Your task to perform on an android device: turn off translation in the chrome app Image 0: 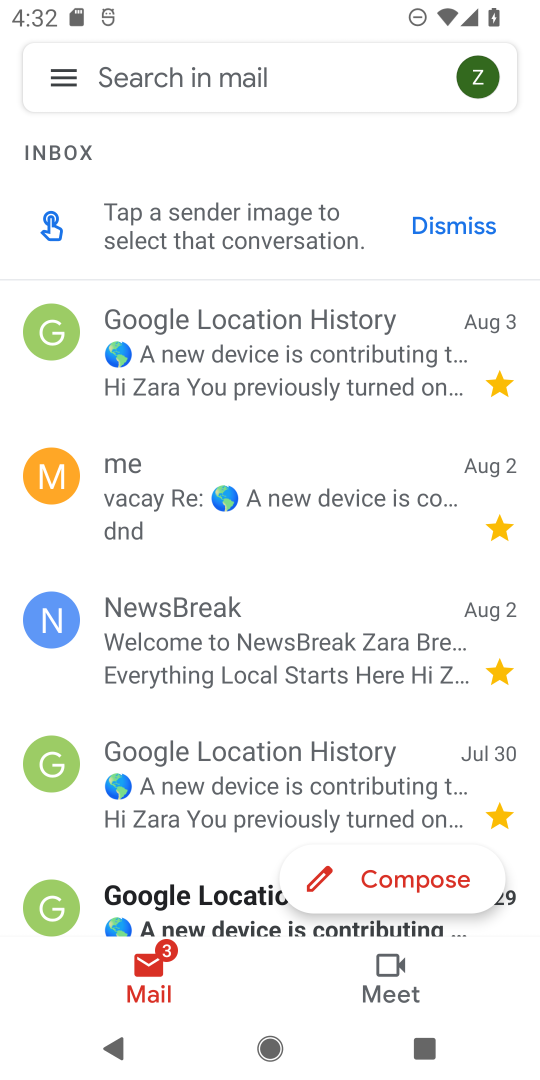
Step 0: press home button
Your task to perform on an android device: turn off translation in the chrome app Image 1: 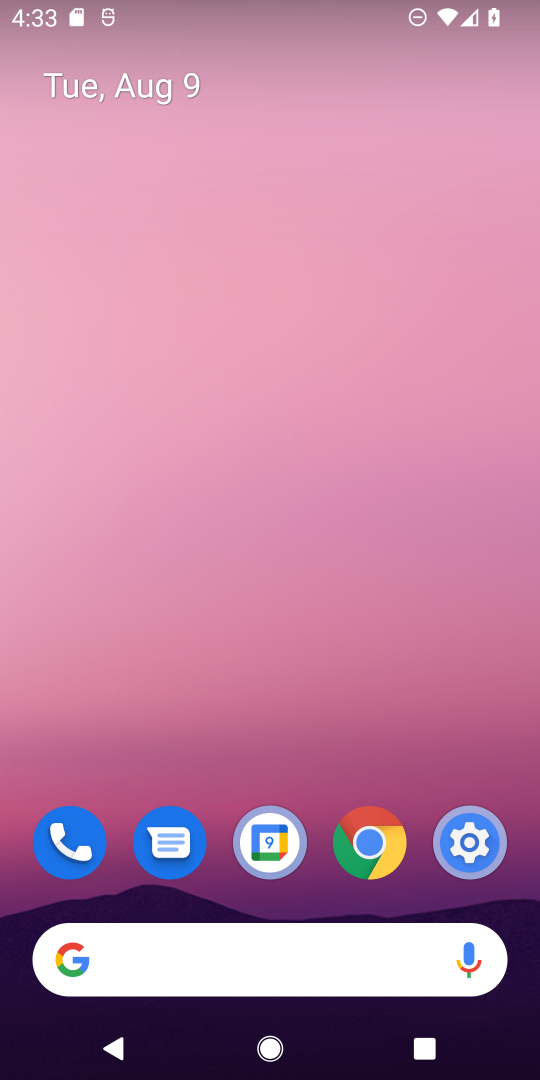
Step 1: drag from (270, 965) to (16, 240)
Your task to perform on an android device: turn off translation in the chrome app Image 2: 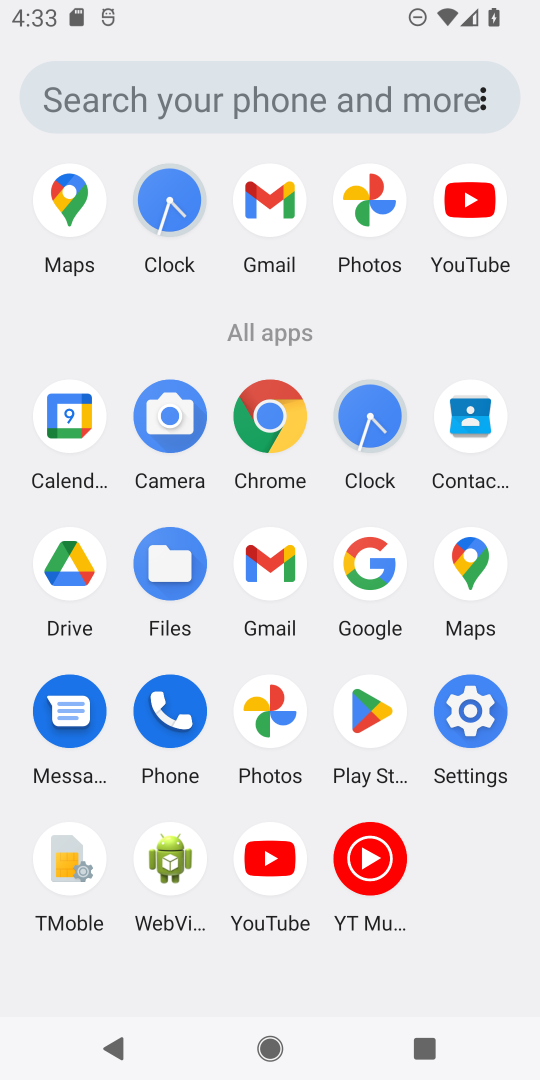
Step 2: click (262, 382)
Your task to perform on an android device: turn off translation in the chrome app Image 3: 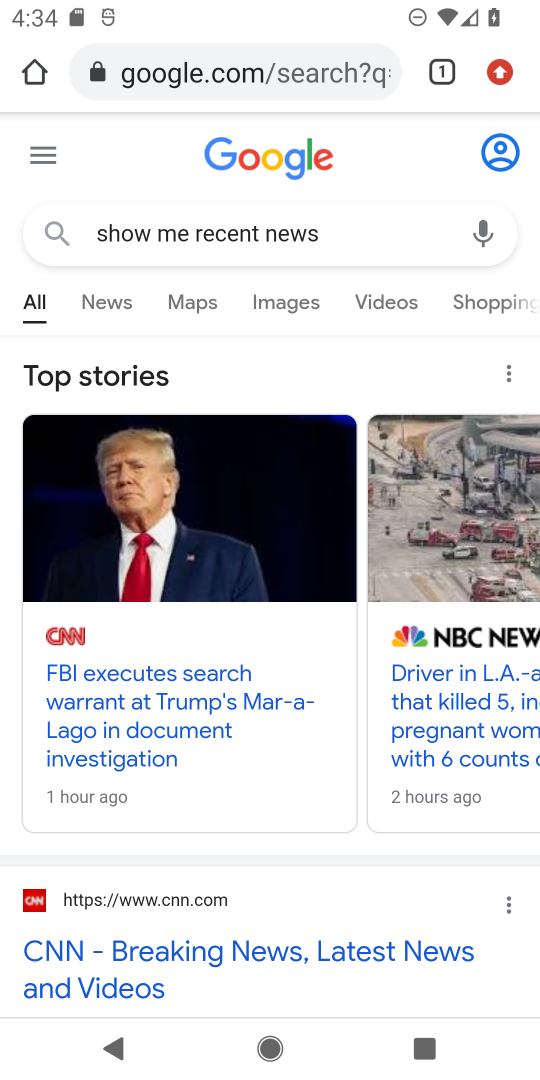
Step 3: click (491, 66)
Your task to perform on an android device: turn off translation in the chrome app Image 4: 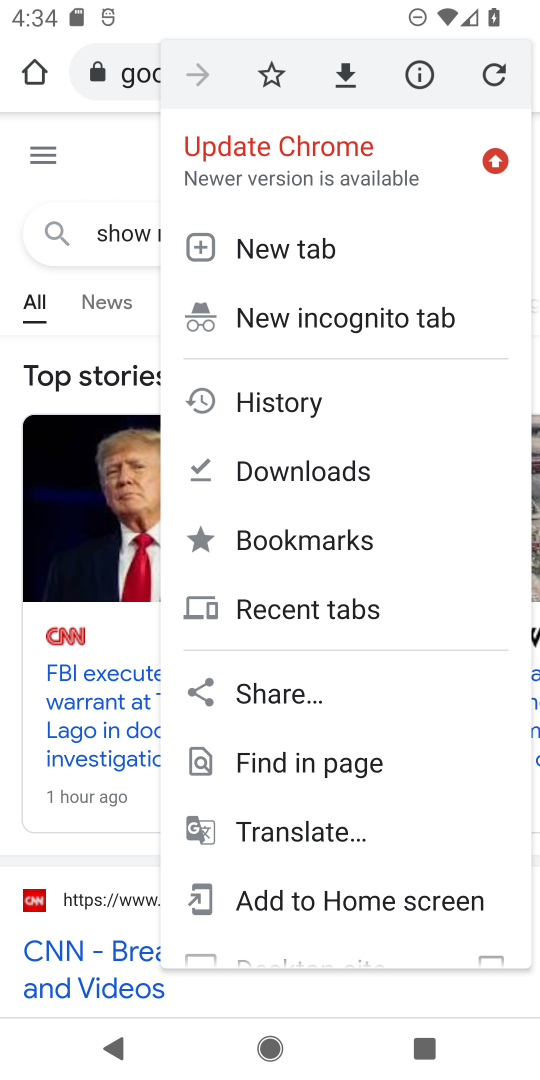
Step 4: drag from (448, 840) to (451, 282)
Your task to perform on an android device: turn off translation in the chrome app Image 5: 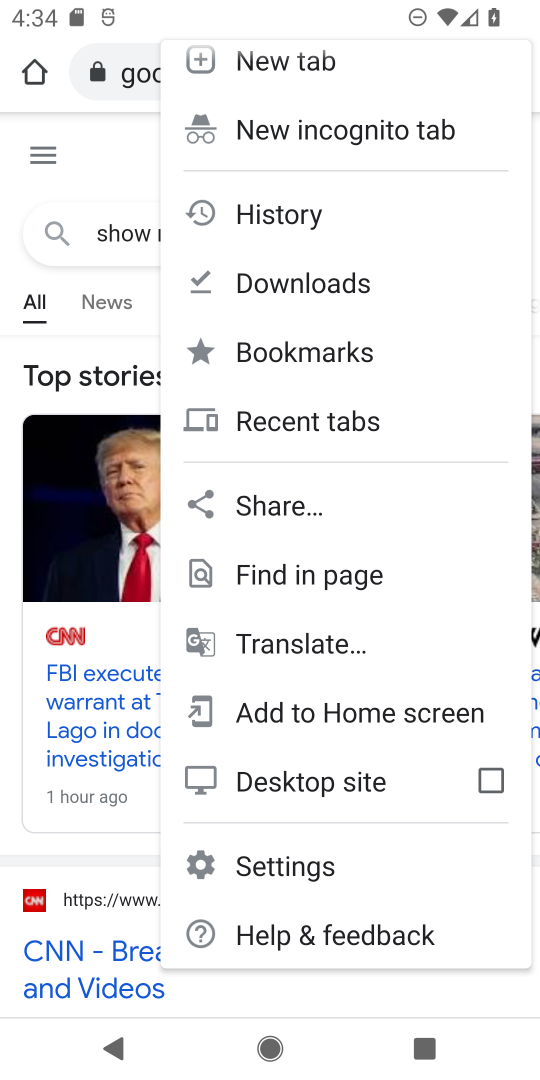
Step 5: click (283, 870)
Your task to perform on an android device: turn off translation in the chrome app Image 6: 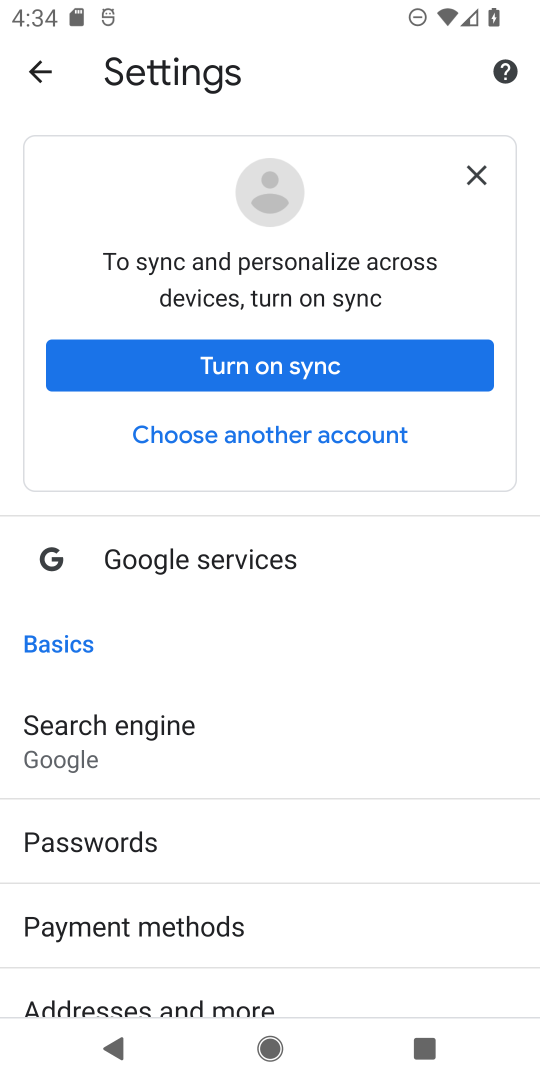
Step 6: drag from (443, 917) to (417, 85)
Your task to perform on an android device: turn off translation in the chrome app Image 7: 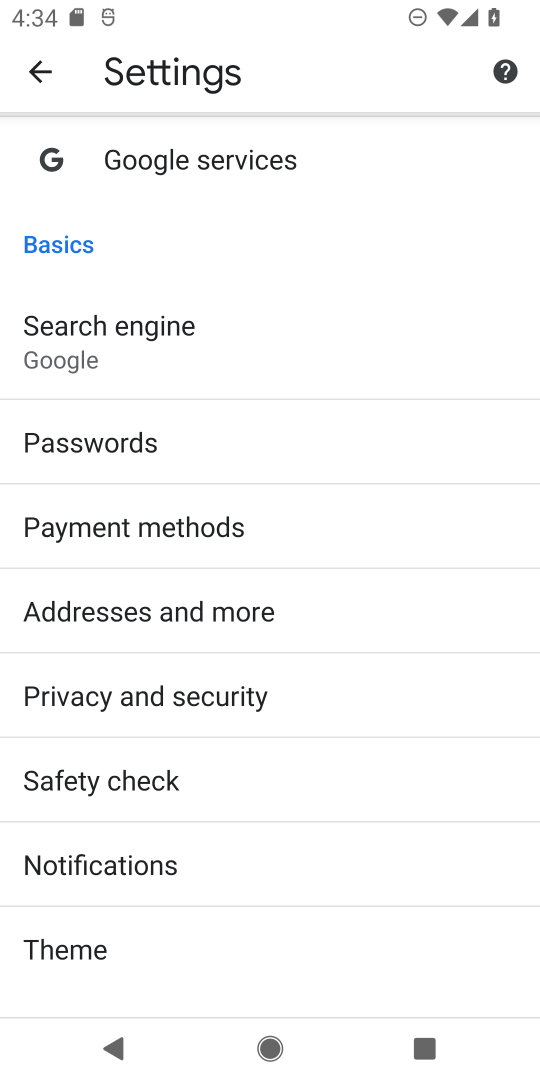
Step 7: drag from (457, 968) to (364, 160)
Your task to perform on an android device: turn off translation in the chrome app Image 8: 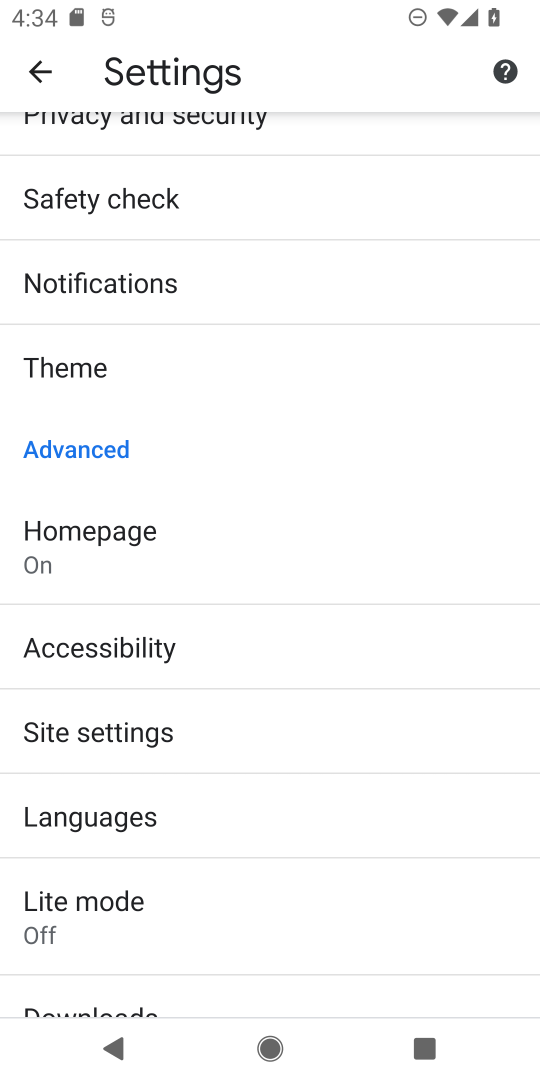
Step 8: click (298, 725)
Your task to perform on an android device: turn off translation in the chrome app Image 9: 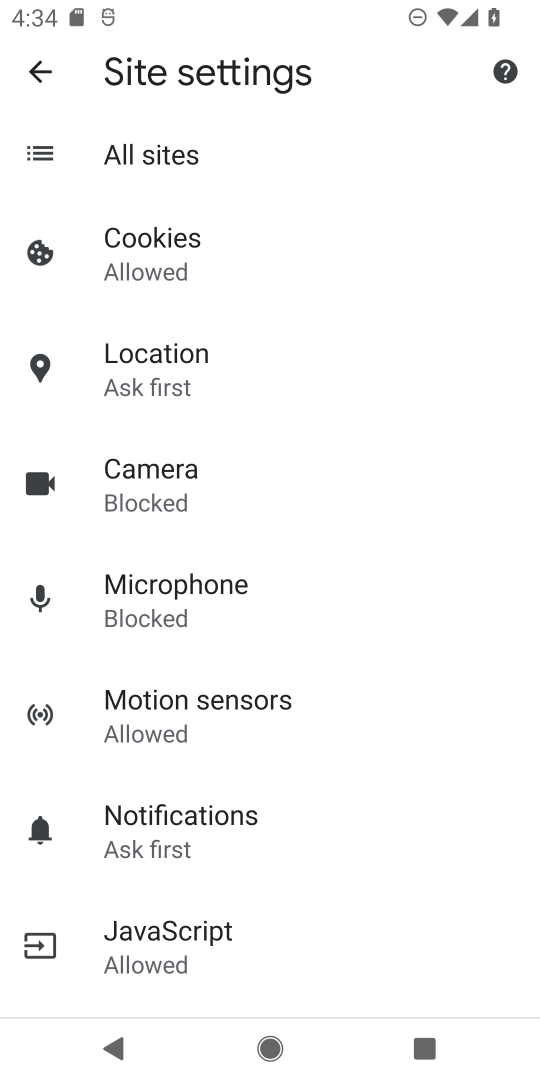
Step 9: press back button
Your task to perform on an android device: turn off translation in the chrome app Image 10: 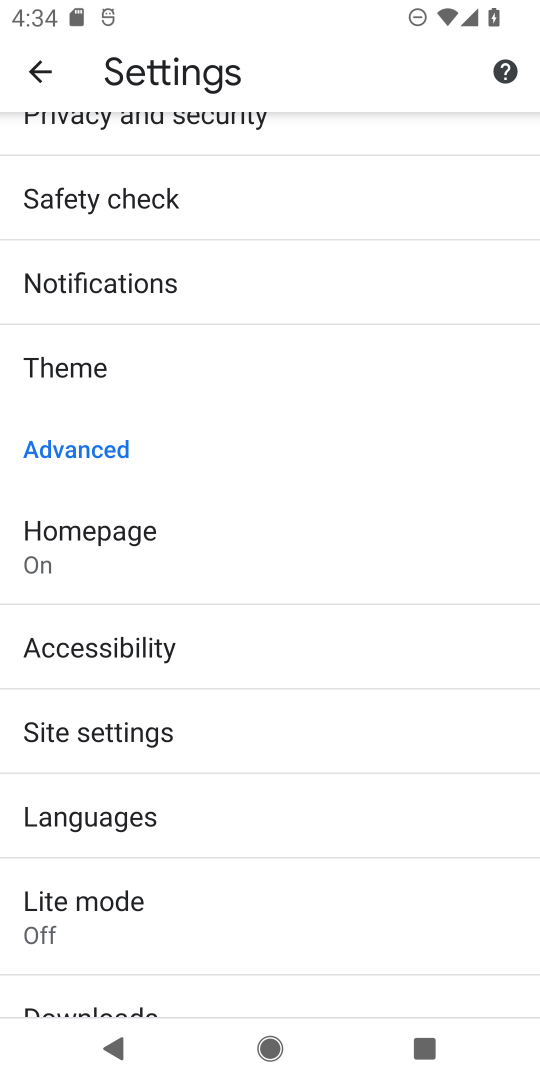
Step 10: click (232, 790)
Your task to perform on an android device: turn off translation in the chrome app Image 11: 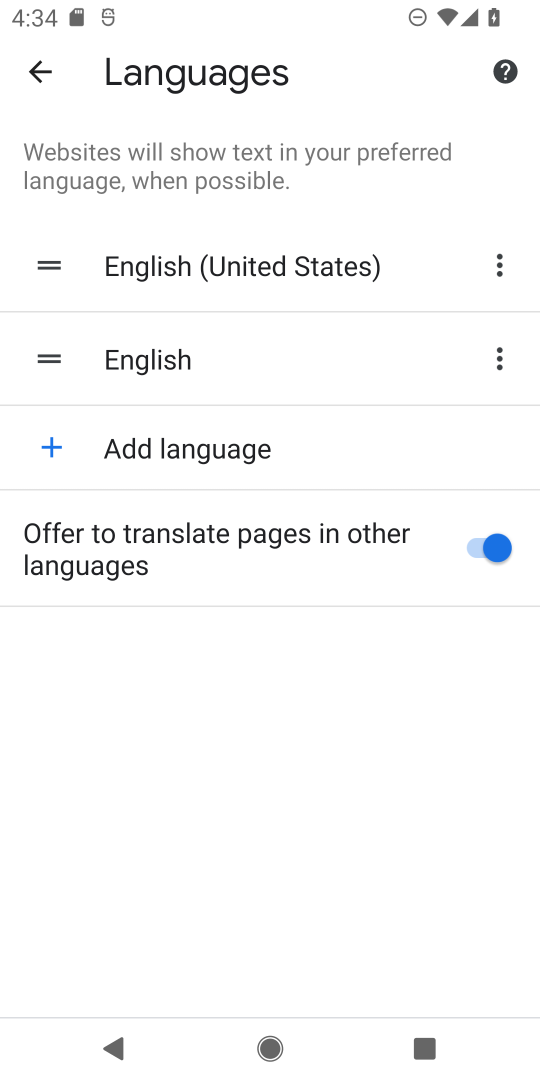
Step 11: click (482, 547)
Your task to perform on an android device: turn off translation in the chrome app Image 12: 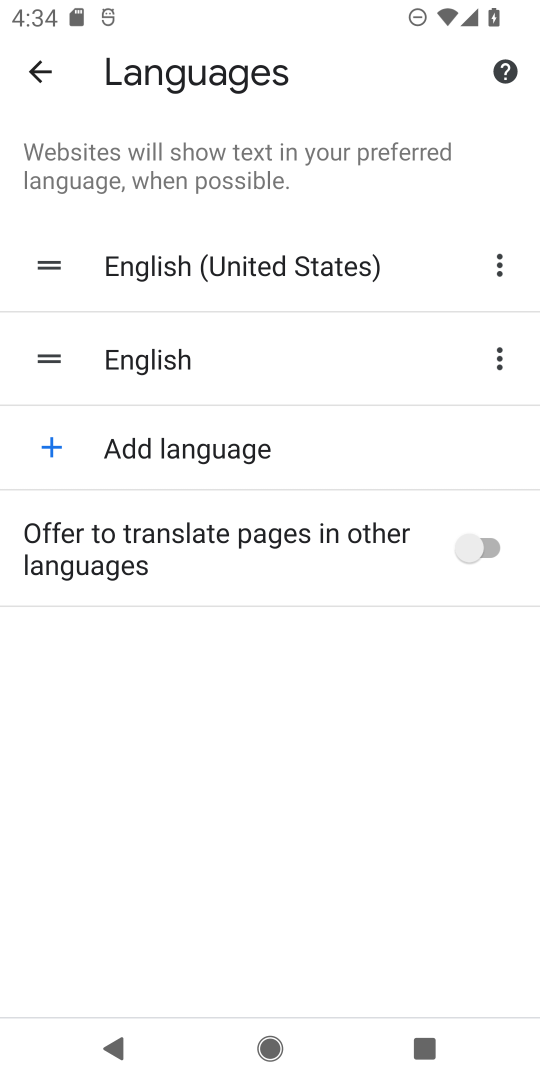
Step 12: task complete